Your task to perform on an android device: turn on bluetooth scan Image 0: 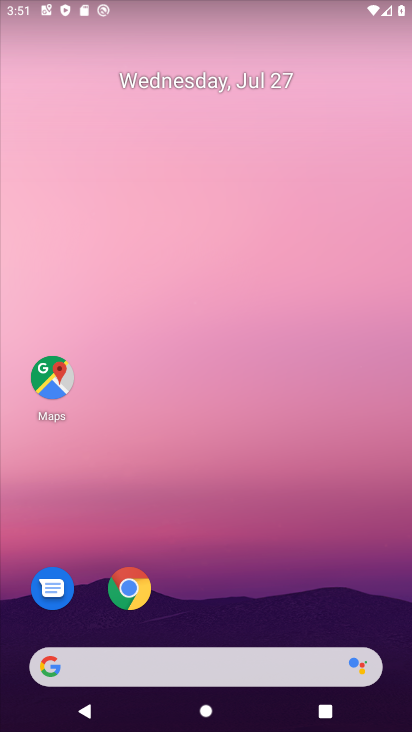
Step 0: press home button
Your task to perform on an android device: turn on bluetooth scan Image 1: 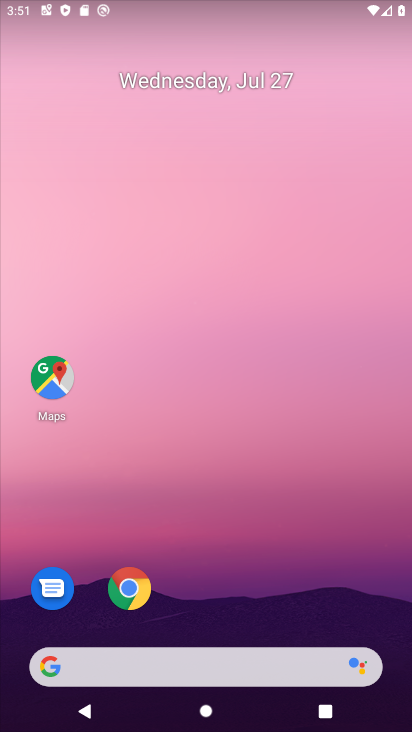
Step 1: drag from (258, 610) to (121, 55)
Your task to perform on an android device: turn on bluetooth scan Image 2: 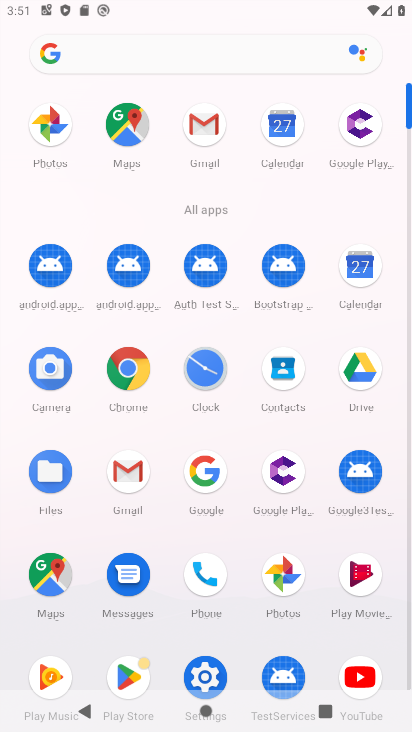
Step 2: click (203, 666)
Your task to perform on an android device: turn on bluetooth scan Image 3: 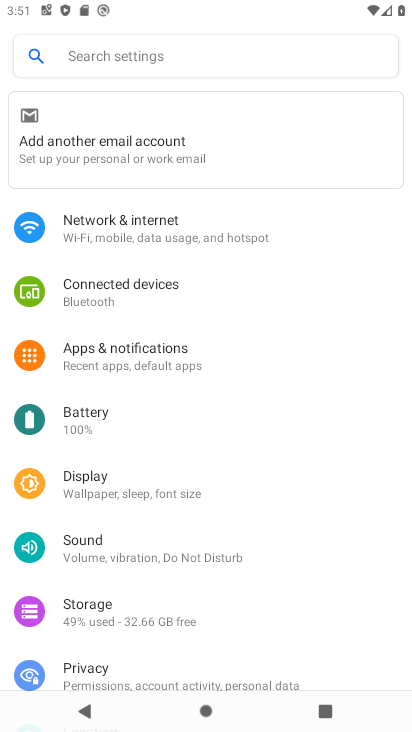
Step 3: drag from (309, 599) to (256, 426)
Your task to perform on an android device: turn on bluetooth scan Image 4: 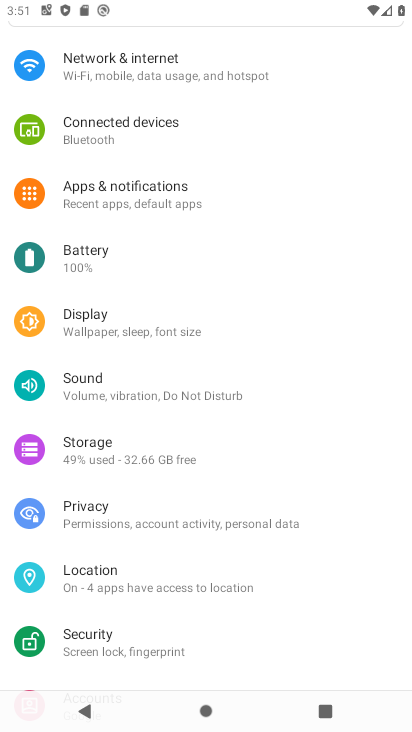
Step 4: click (73, 584)
Your task to perform on an android device: turn on bluetooth scan Image 5: 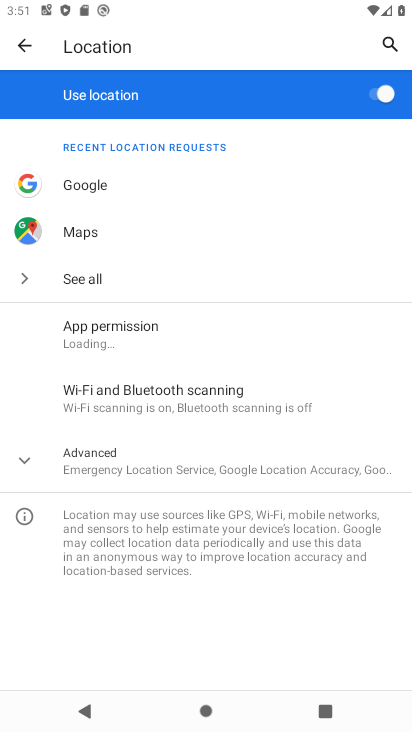
Step 5: click (144, 402)
Your task to perform on an android device: turn on bluetooth scan Image 6: 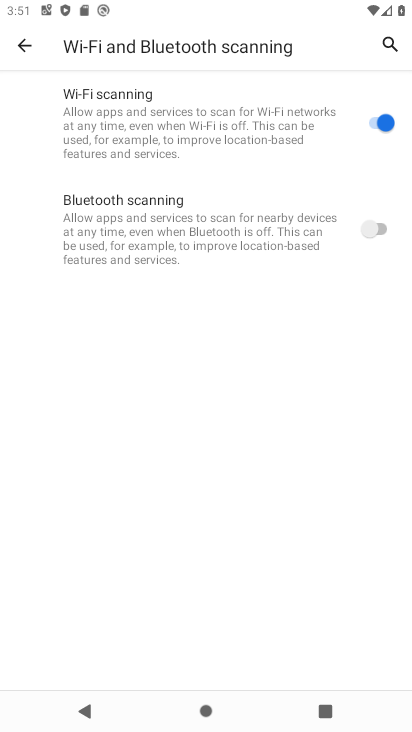
Step 6: click (374, 226)
Your task to perform on an android device: turn on bluetooth scan Image 7: 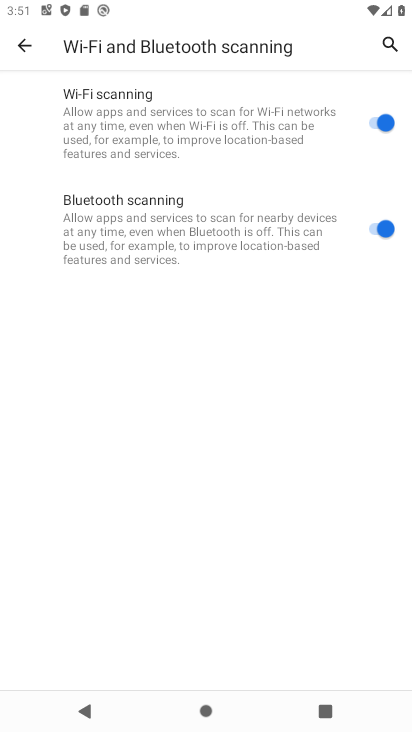
Step 7: task complete